Your task to perform on an android device: toggle javascript in the chrome app Image 0: 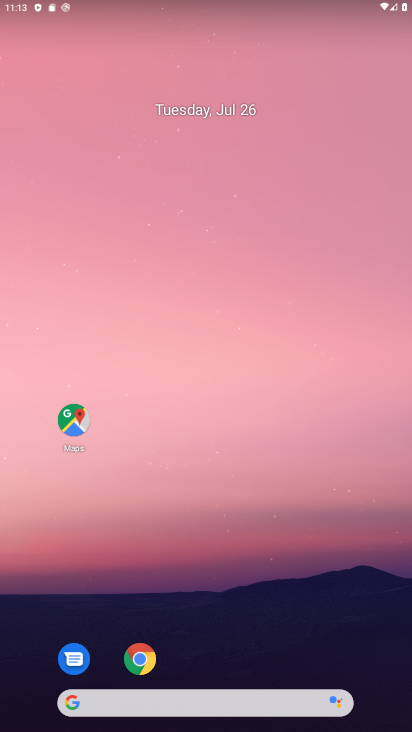
Step 0: click (147, 660)
Your task to perform on an android device: toggle javascript in the chrome app Image 1: 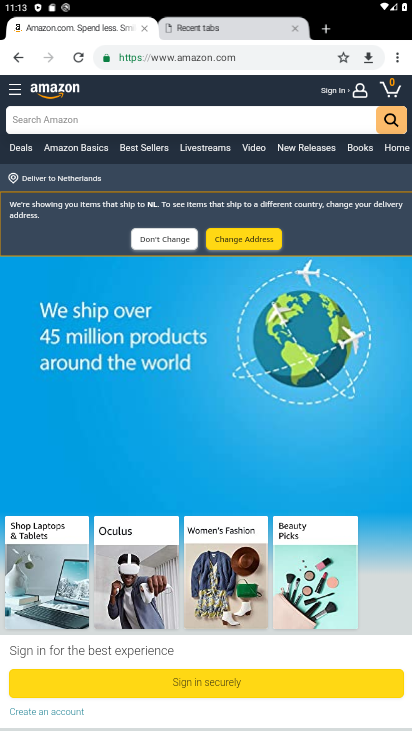
Step 1: click (395, 55)
Your task to perform on an android device: toggle javascript in the chrome app Image 2: 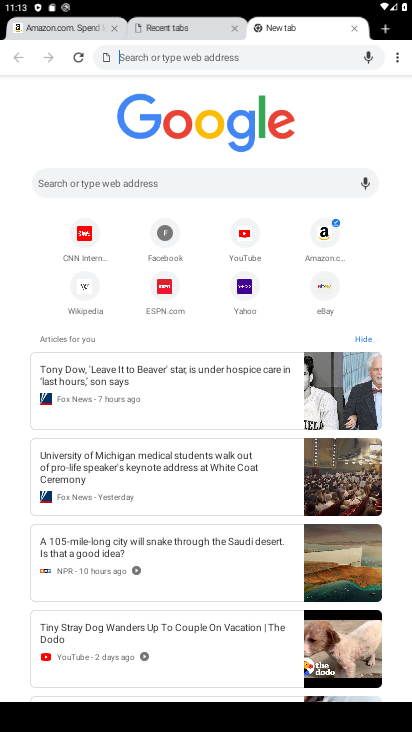
Step 2: click (398, 60)
Your task to perform on an android device: toggle javascript in the chrome app Image 3: 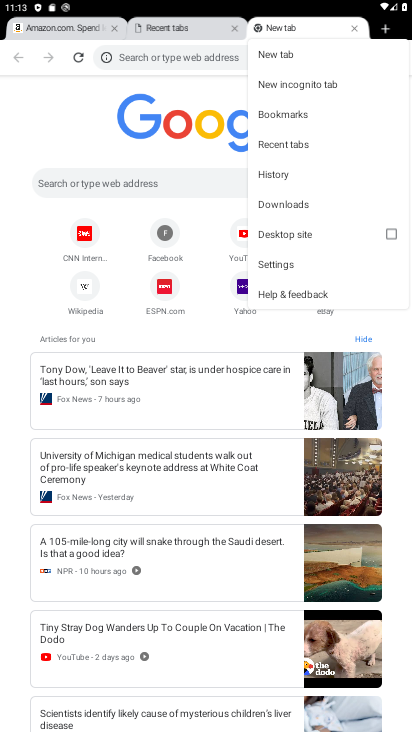
Step 3: click (283, 257)
Your task to perform on an android device: toggle javascript in the chrome app Image 4: 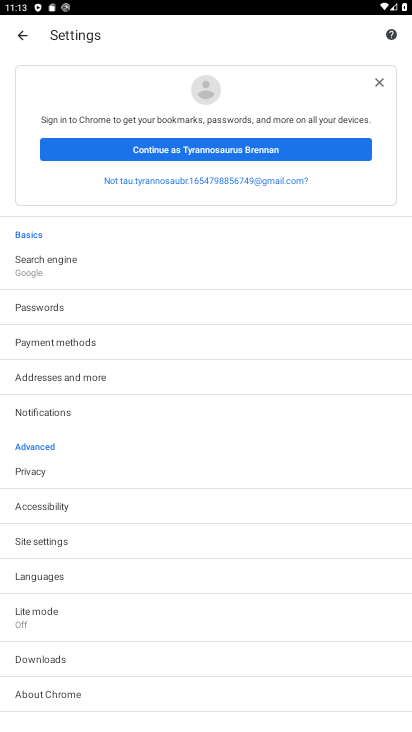
Step 4: click (71, 540)
Your task to perform on an android device: toggle javascript in the chrome app Image 5: 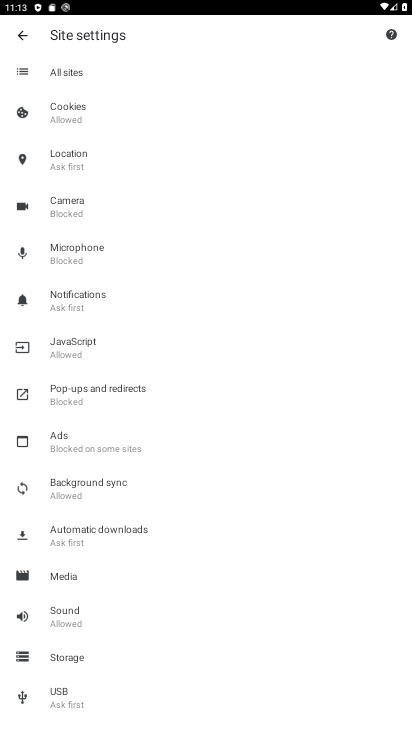
Step 5: click (88, 344)
Your task to perform on an android device: toggle javascript in the chrome app Image 6: 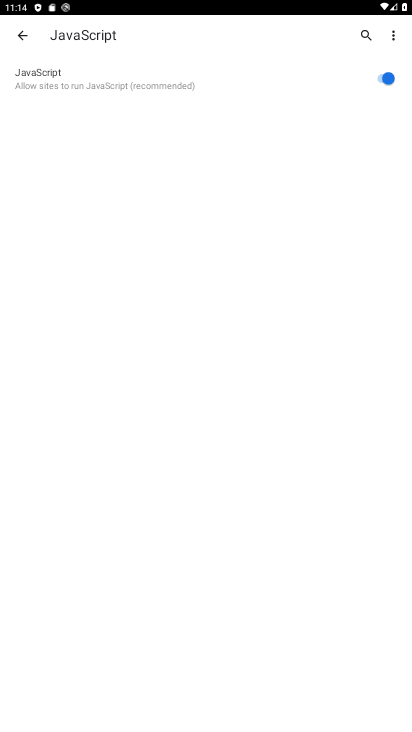
Step 6: click (389, 78)
Your task to perform on an android device: toggle javascript in the chrome app Image 7: 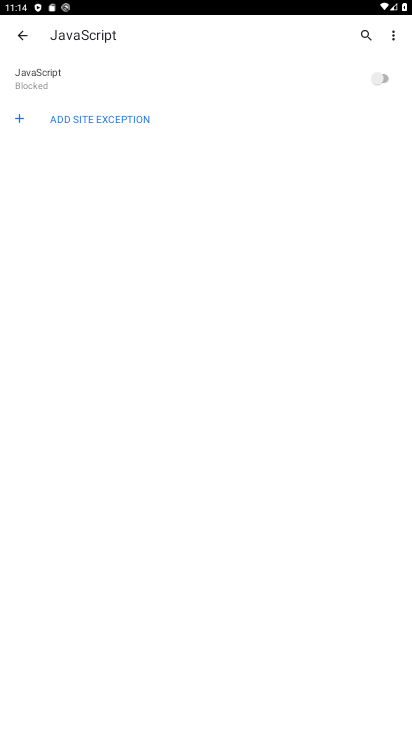
Step 7: task complete